Your task to perform on an android device: Clear the cart on ebay.com. Add jbl charge 4 to the cart on ebay.com Image 0: 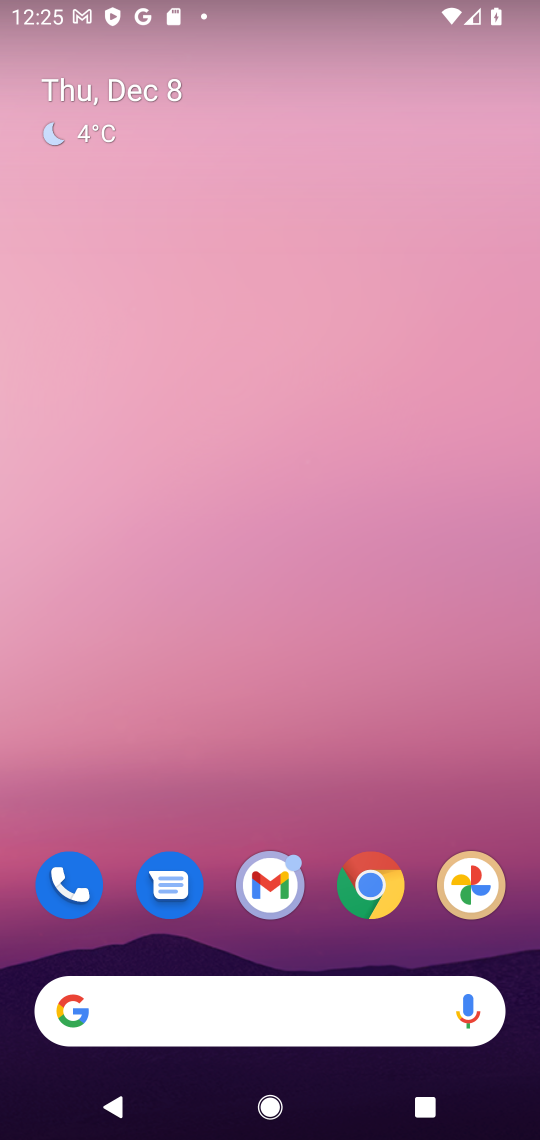
Step 0: click (370, 903)
Your task to perform on an android device: Clear the cart on ebay.com. Add jbl charge 4 to the cart on ebay.com Image 1: 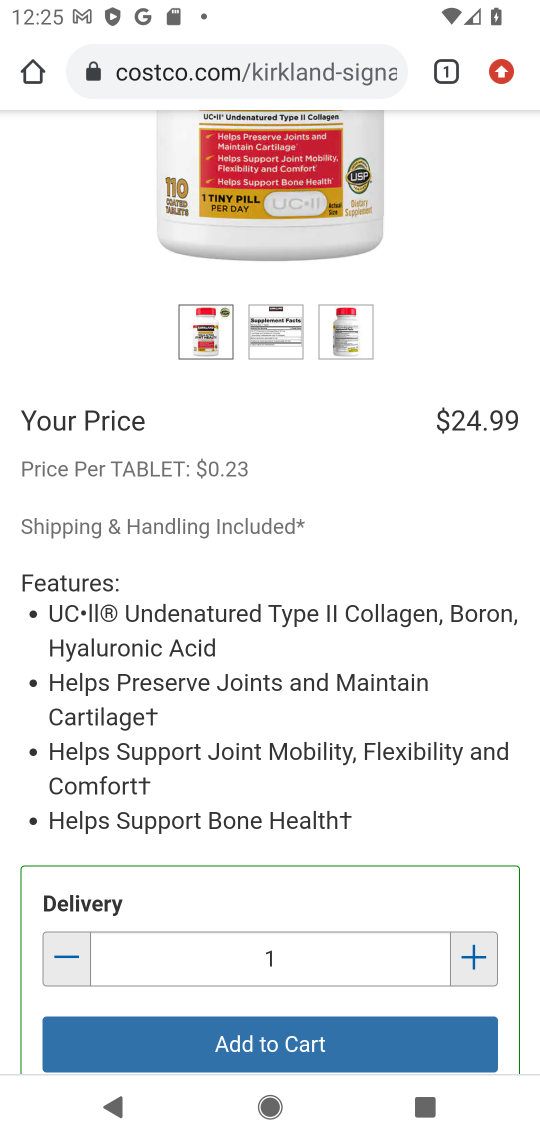
Step 1: click (324, 74)
Your task to perform on an android device: Clear the cart on ebay.com. Add jbl charge 4 to the cart on ebay.com Image 2: 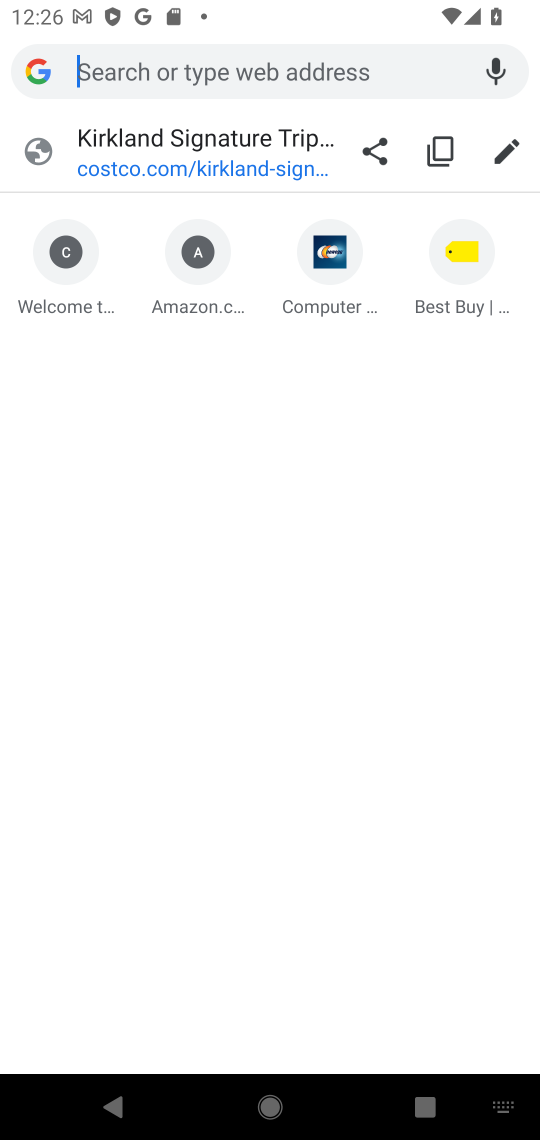
Step 2: type "EBAY"
Your task to perform on an android device: Clear the cart on ebay.com. Add jbl charge 4 to the cart on ebay.com Image 3: 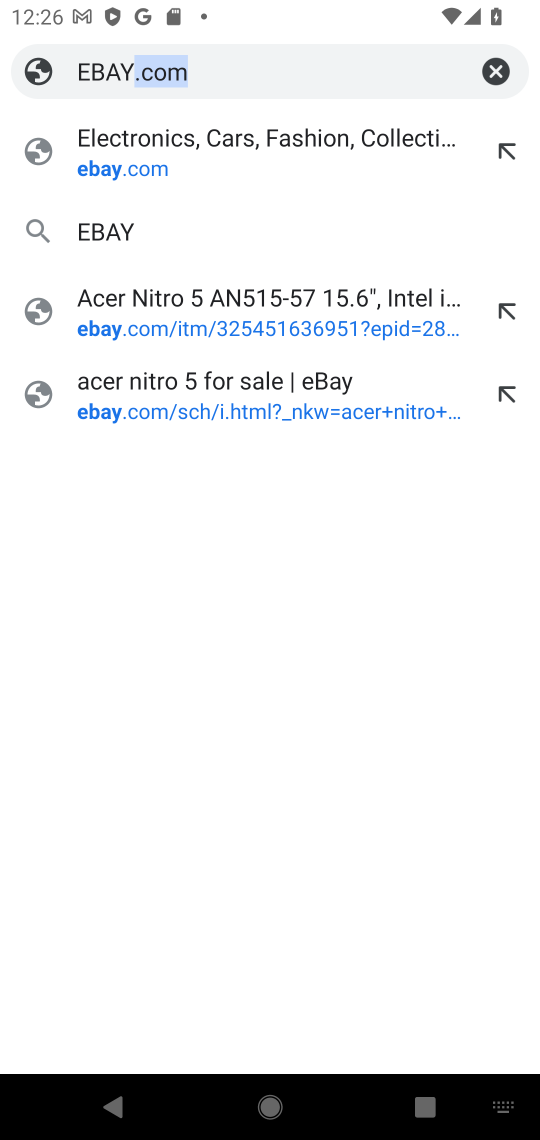
Step 3: click (149, 166)
Your task to perform on an android device: Clear the cart on ebay.com. Add jbl charge 4 to the cart on ebay.com Image 4: 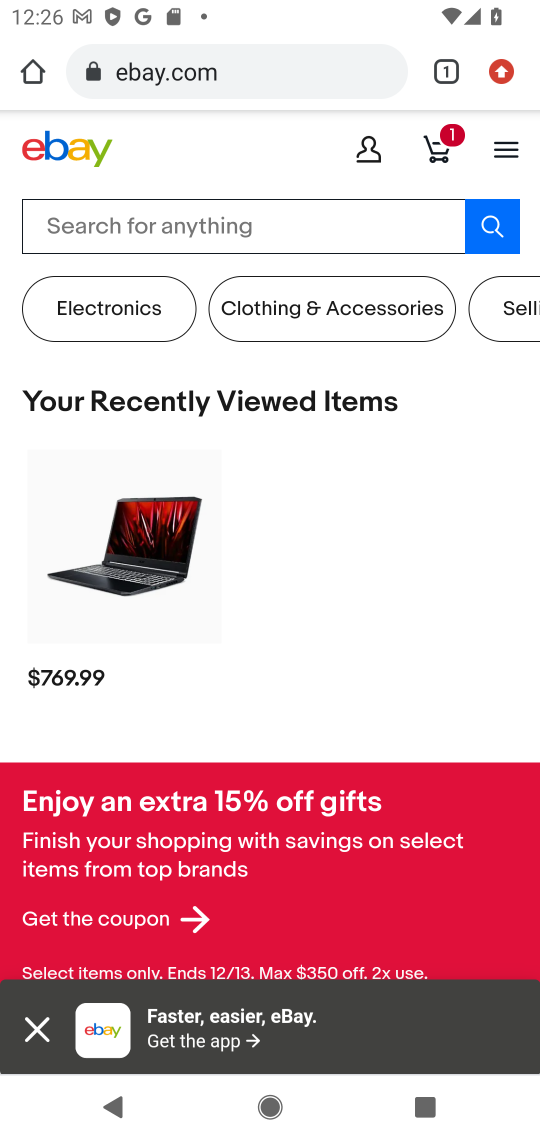
Step 4: drag from (336, 755) to (310, 124)
Your task to perform on an android device: Clear the cart on ebay.com. Add jbl charge 4 to the cart on ebay.com Image 5: 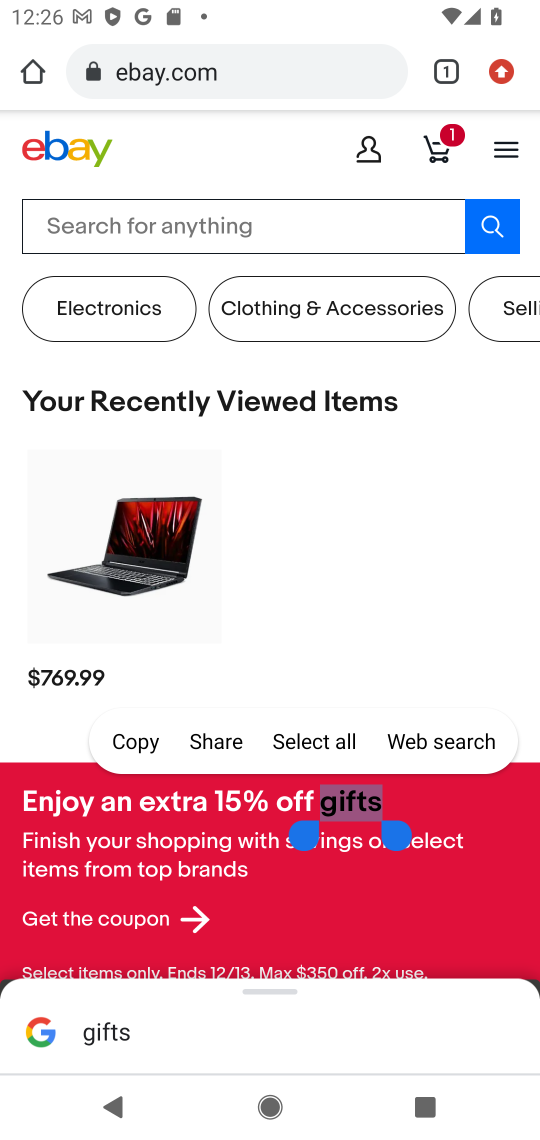
Step 5: drag from (430, 587) to (437, 84)
Your task to perform on an android device: Clear the cart on ebay.com. Add jbl charge 4 to the cart on ebay.com Image 6: 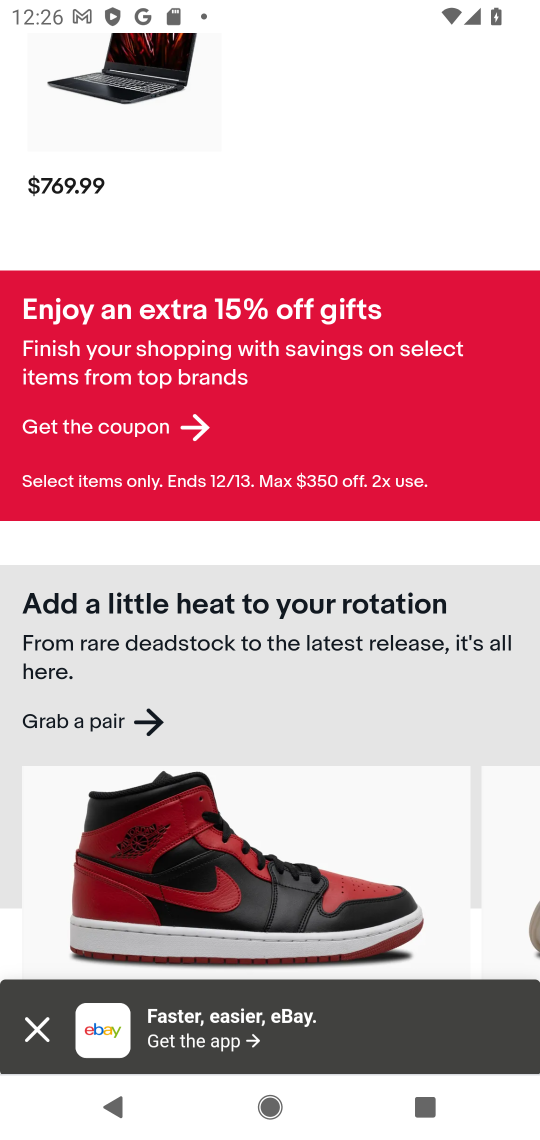
Step 6: drag from (349, 769) to (362, 130)
Your task to perform on an android device: Clear the cart on ebay.com. Add jbl charge 4 to the cart on ebay.com Image 7: 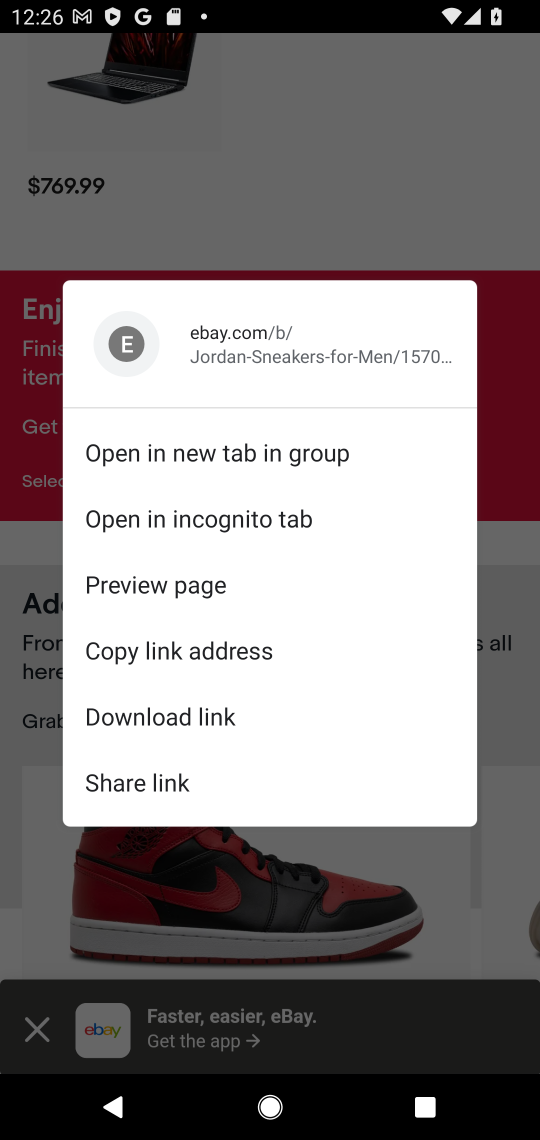
Step 7: click (401, 170)
Your task to perform on an android device: Clear the cart on ebay.com. Add jbl charge 4 to the cart on ebay.com Image 8: 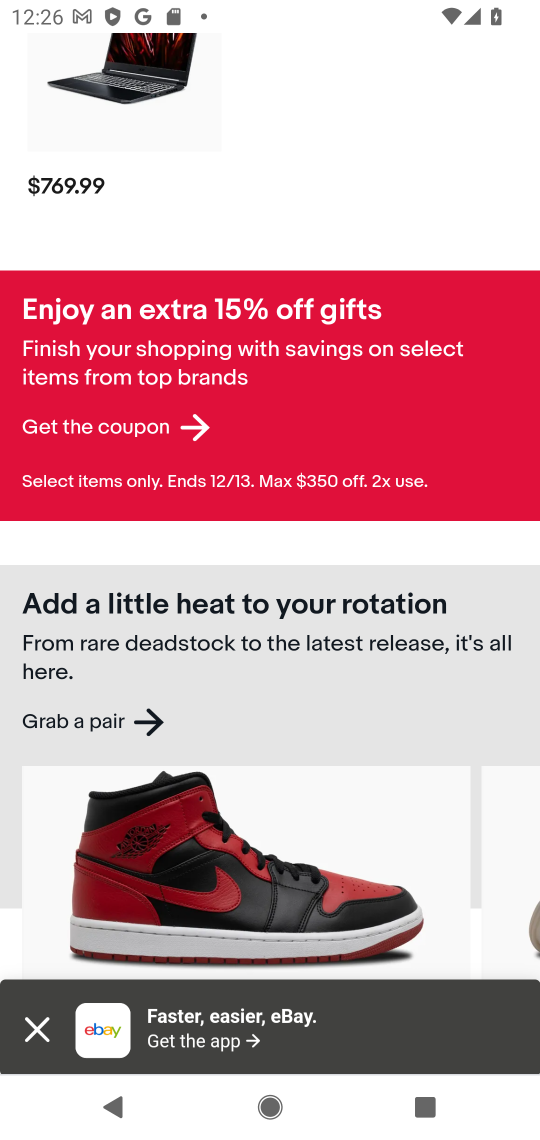
Step 8: drag from (458, 235) to (409, 740)
Your task to perform on an android device: Clear the cart on ebay.com. Add jbl charge 4 to the cart on ebay.com Image 9: 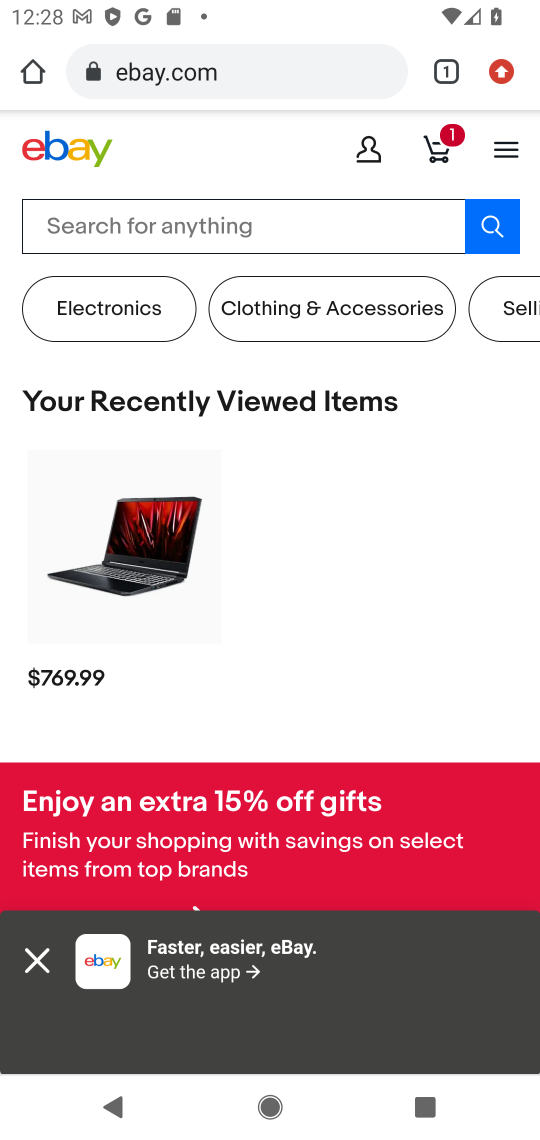
Step 9: click (429, 144)
Your task to perform on an android device: Clear the cart on ebay.com. Add jbl charge 4 to the cart on ebay.com Image 10: 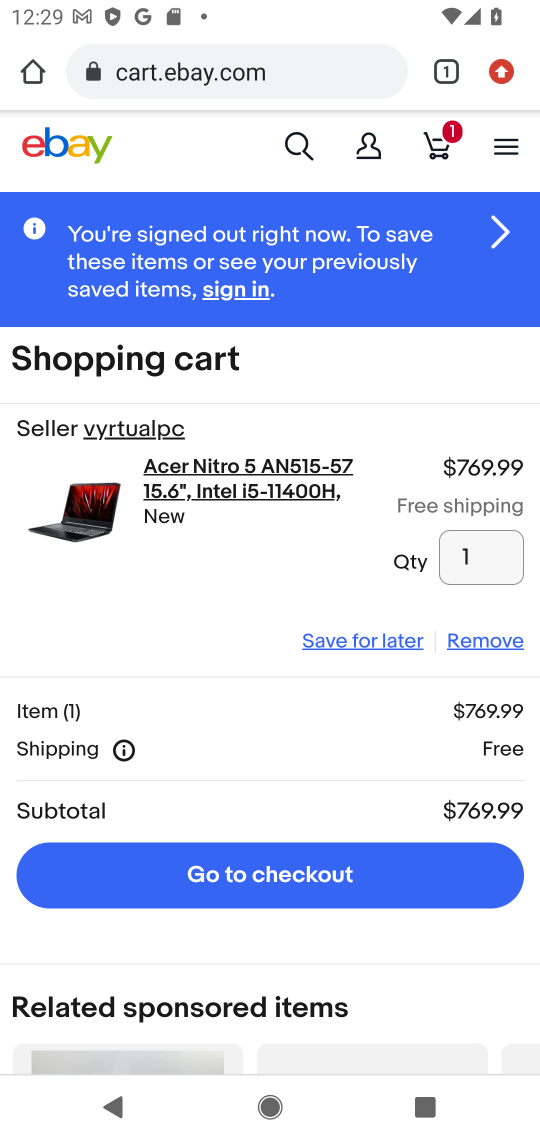
Step 10: click (471, 641)
Your task to perform on an android device: Clear the cart on ebay.com. Add jbl charge 4 to the cart on ebay.com Image 11: 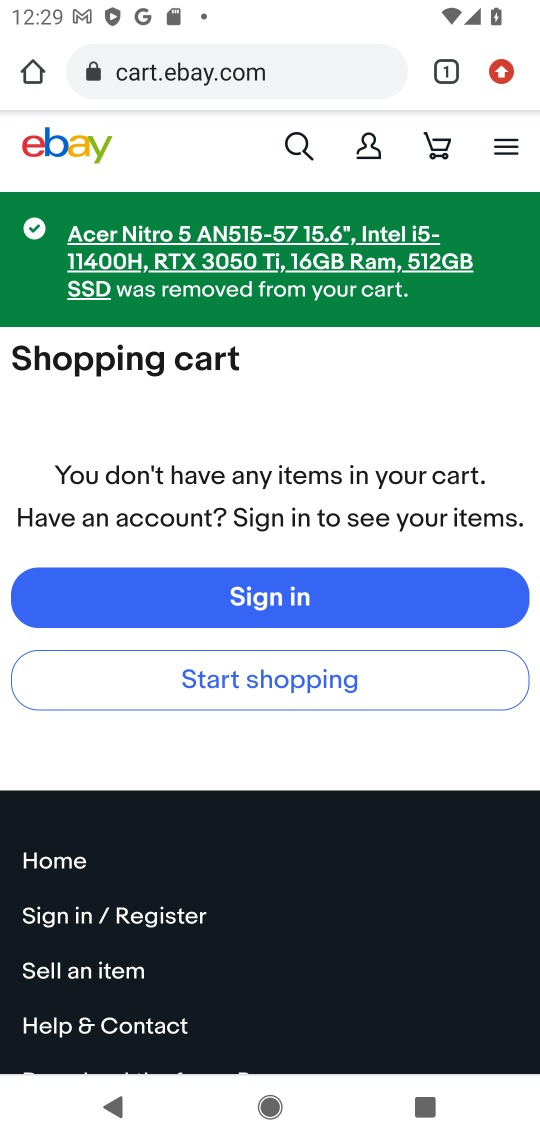
Step 11: click (297, 149)
Your task to perform on an android device: Clear the cart on ebay.com. Add jbl charge 4 to the cart on ebay.com Image 12: 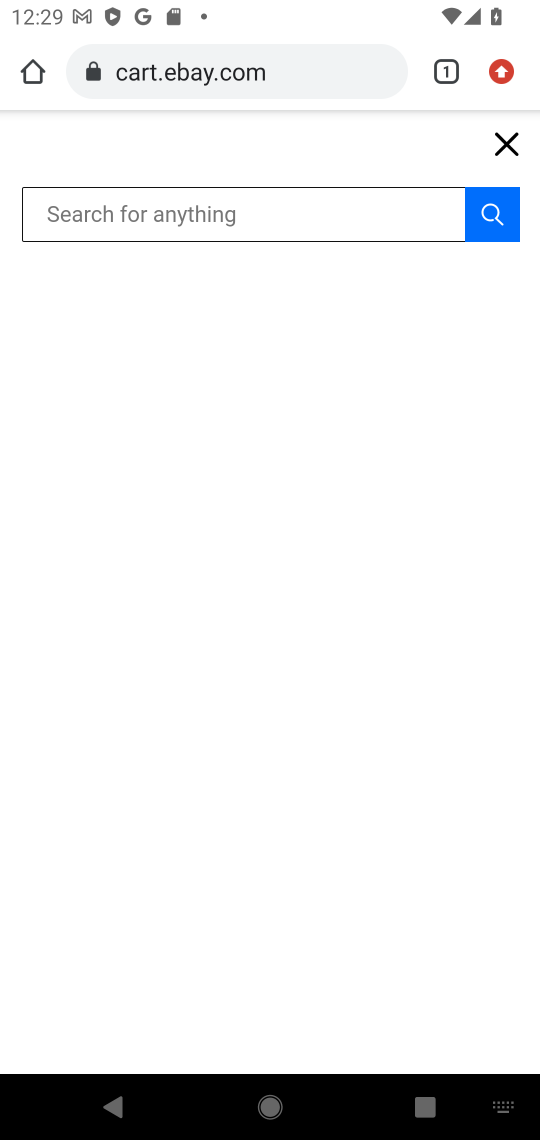
Step 12: type "jbl charge 4"
Your task to perform on an android device: Clear the cart on ebay.com. Add jbl charge 4 to the cart on ebay.com Image 13: 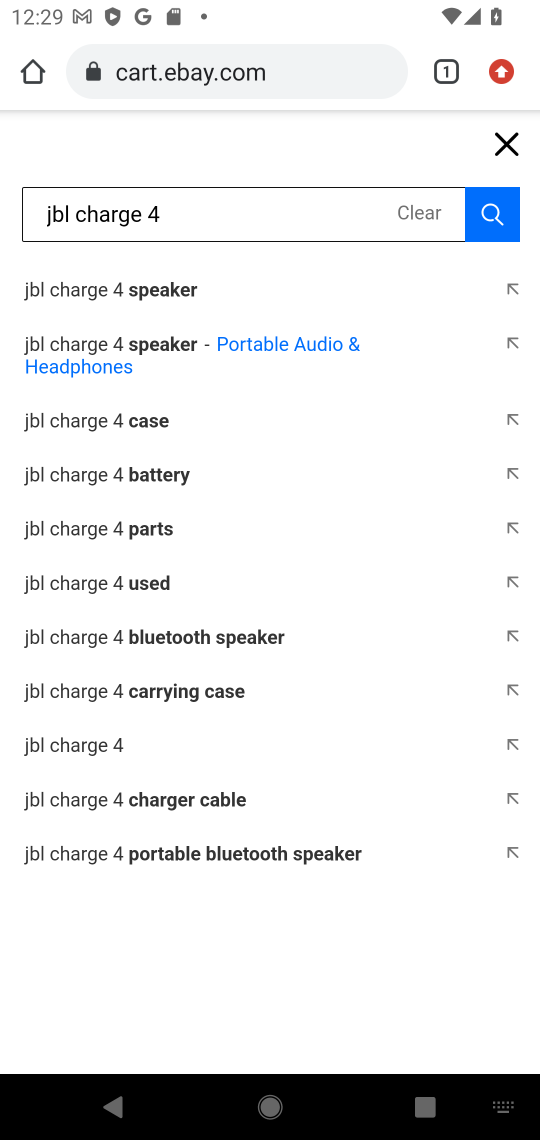
Step 13: click (153, 296)
Your task to perform on an android device: Clear the cart on ebay.com. Add jbl charge 4 to the cart on ebay.com Image 14: 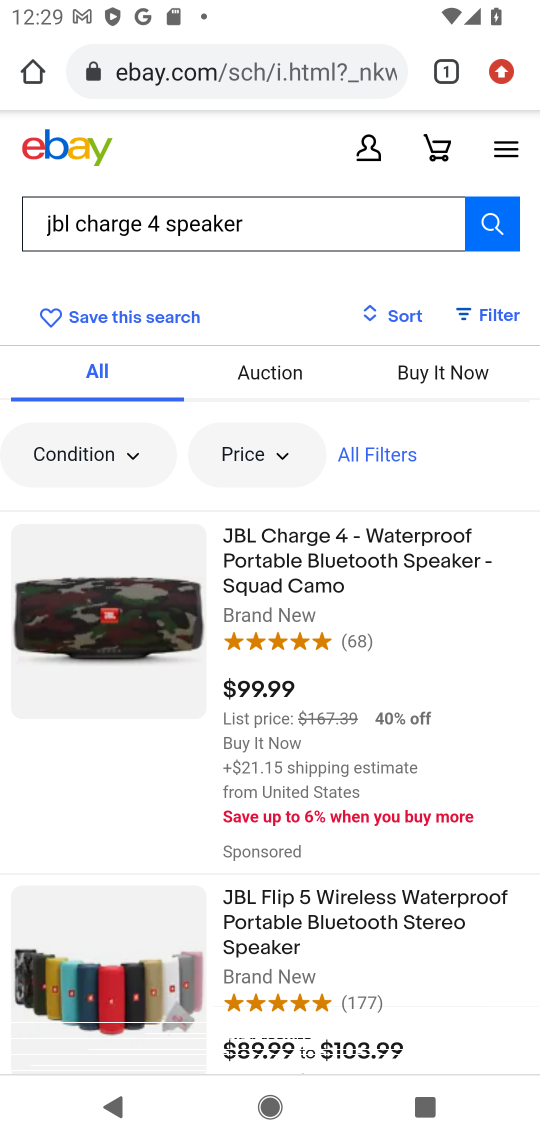
Step 14: click (169, 626)
Your task to perform on an android device: Clear the cart on ebay.com. Add jbl charge 4 to the cart on ebay.com Image 15: 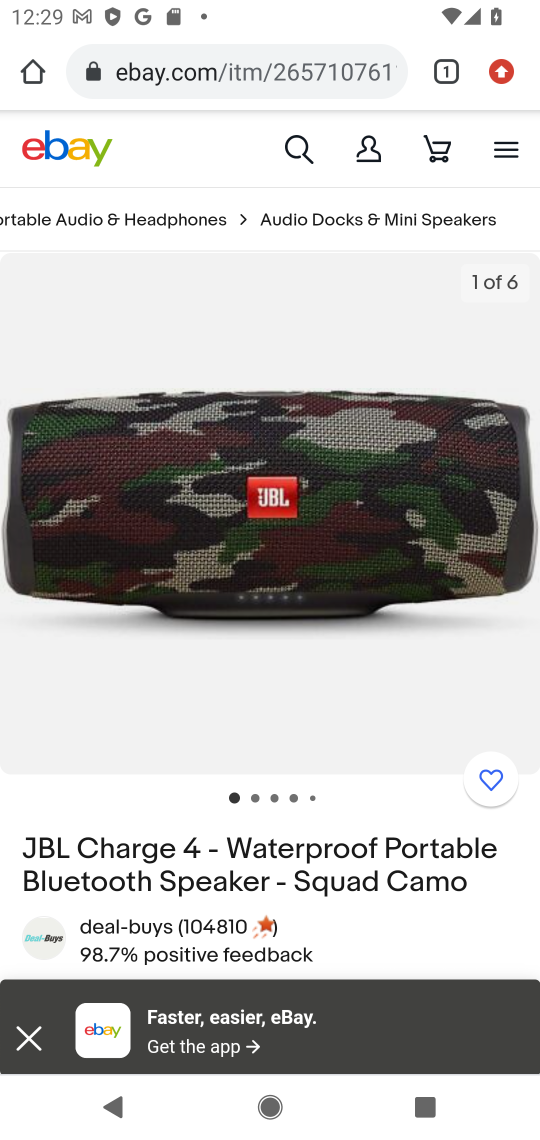
Step 15: drag from (422, 974) to (411, 335)
Your task to perform on an android device: Clear the cart on ebay.com. Add jbl charge 4 to the cart on ebay.com Image 16: 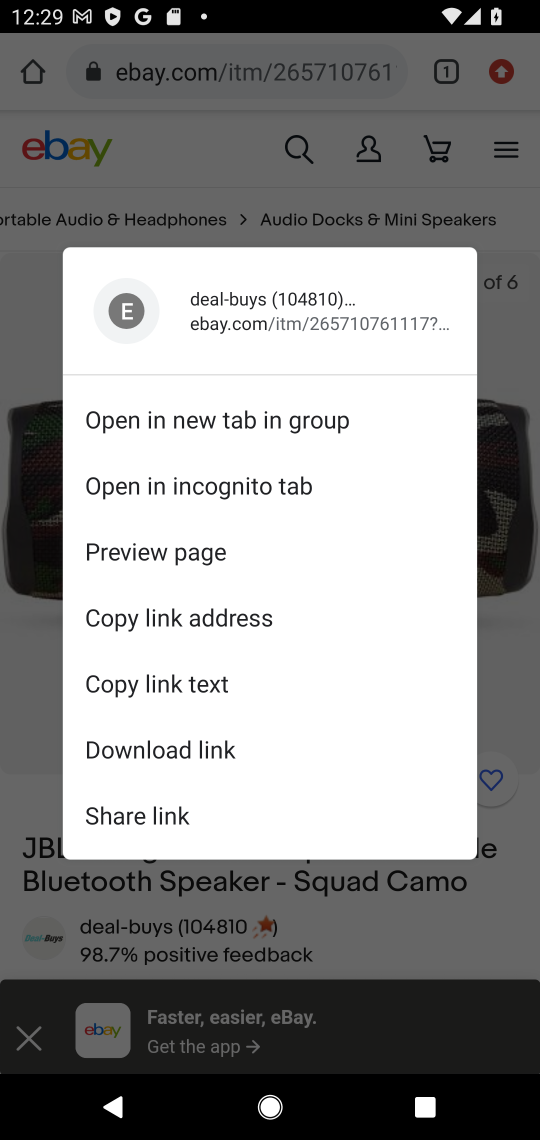
Step 16: click (517, 879)
Your task to perform on an android device: Clear the cart on ebay.com. Add jbl charge 4 to the cart on ebay.com Image 17: 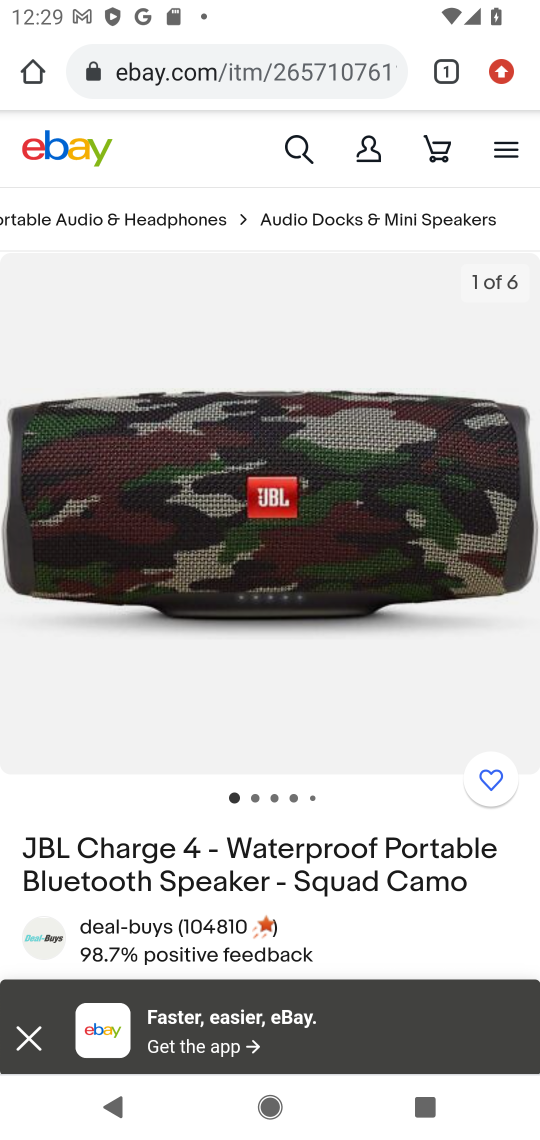
Step 17: drag from (432, 920) to (379, 286)
Your task to perform on an android device: Clear the cart on ebay.com. Add jbl charge 4 to the cart on ebay.com Image 18: 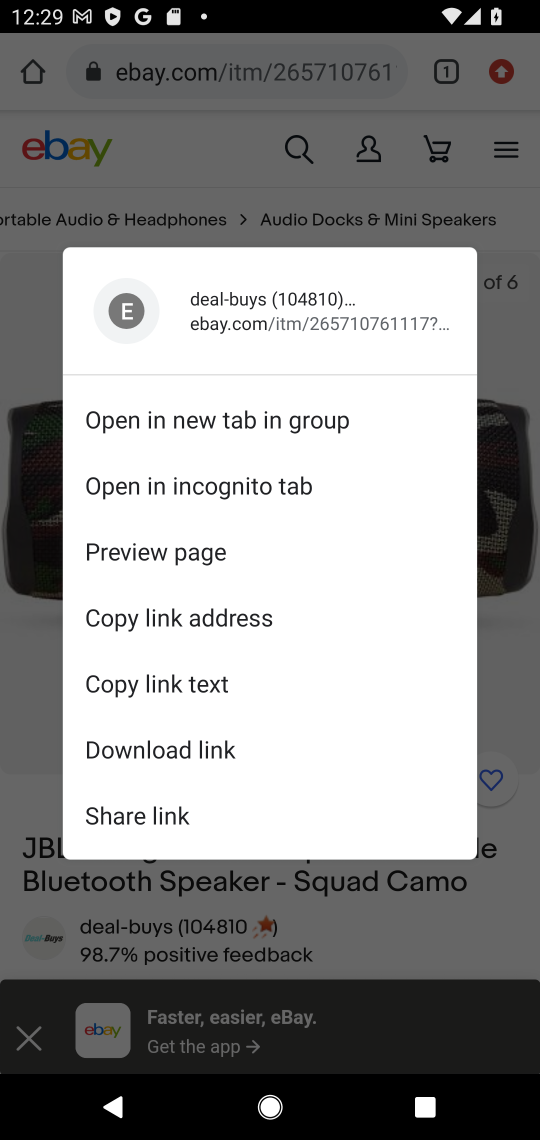
Step 18: click (466, 935)
Your task to perform on an android device: Clear the cart on ebay.com. Add jbl charge 4 to the cart on ebay.com Image 19: 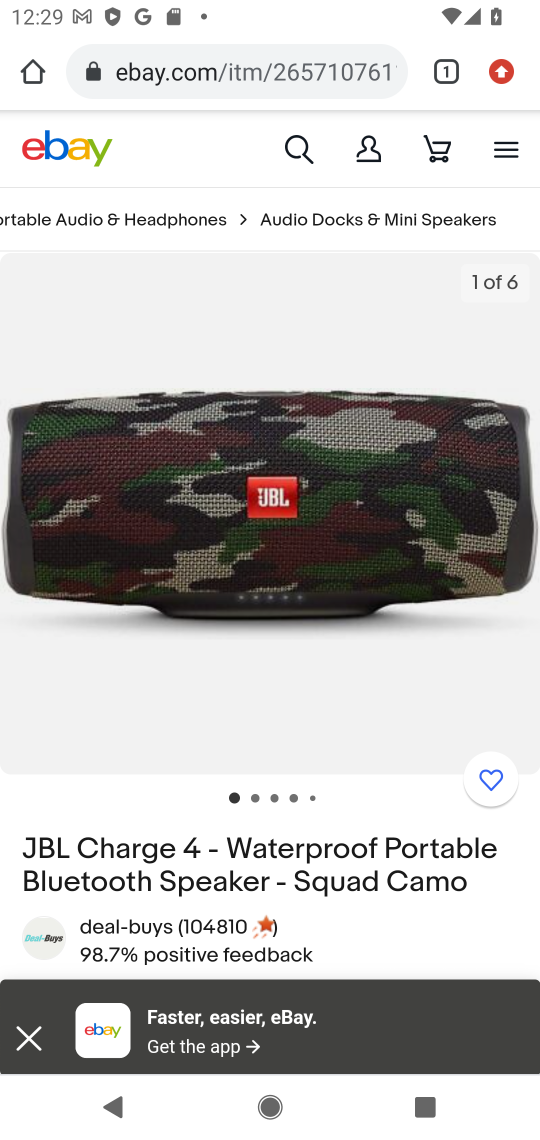
Step 19: drag from (385, 917) to (334, 370)
Your task to perform on an android device: Clear the cart on ebay.com. Add jbl charge 4 to the cart on ebay.com Image 20: 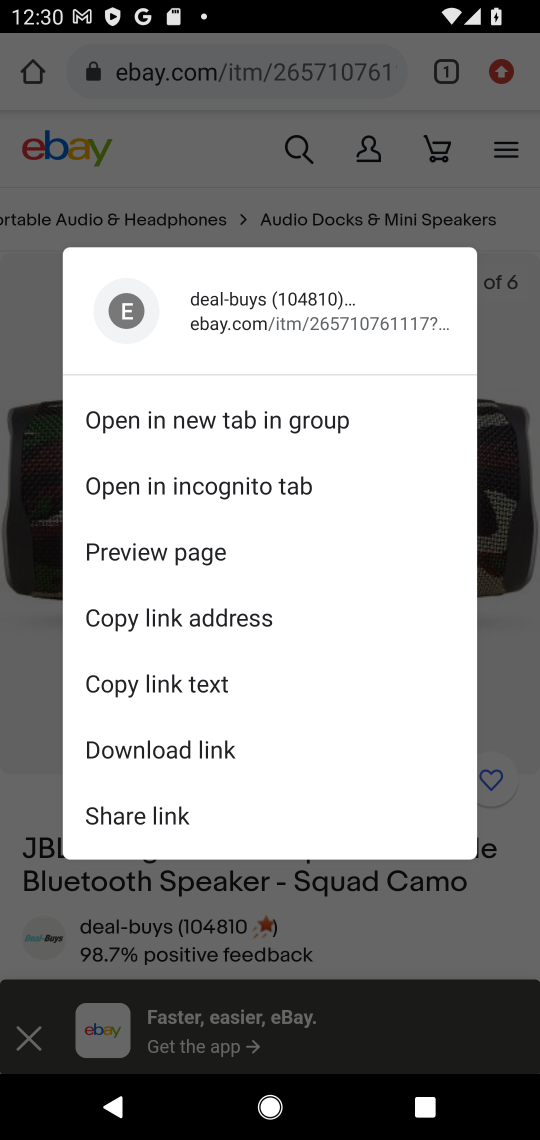
Step 20: click (505, 595)
Your task to perform on an android device: Clear the cart on ebay.com. Add jbl charge 4 to the cart on ebay.com Image 21: 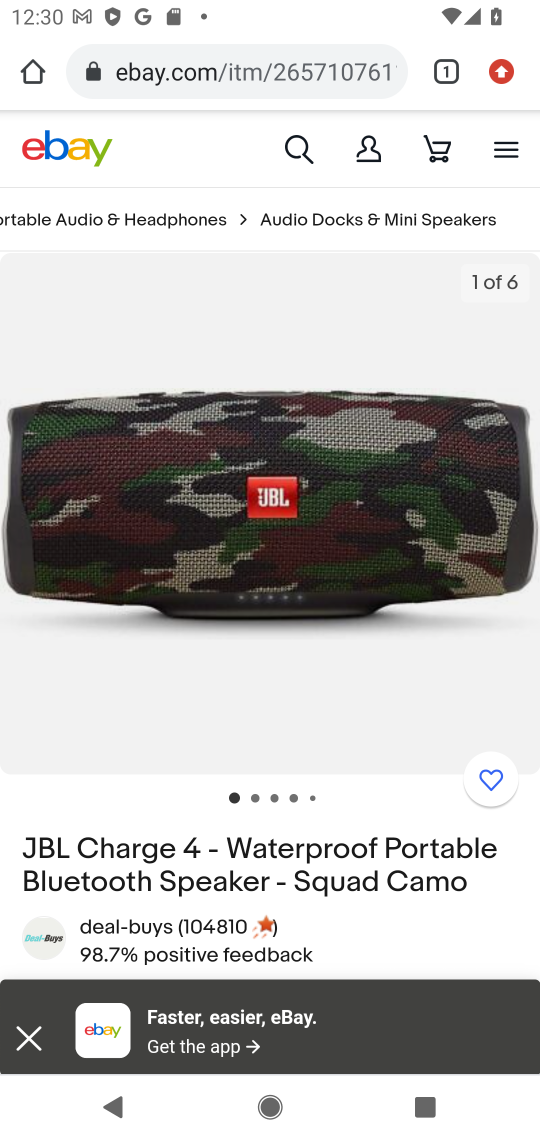
Step 21: drag from (349, 939) to (355, 195)
Your task to perform on an android device: Clear the cart on ebay.com. Add jbl charge 4 to the cart on ebay.com Image 22: 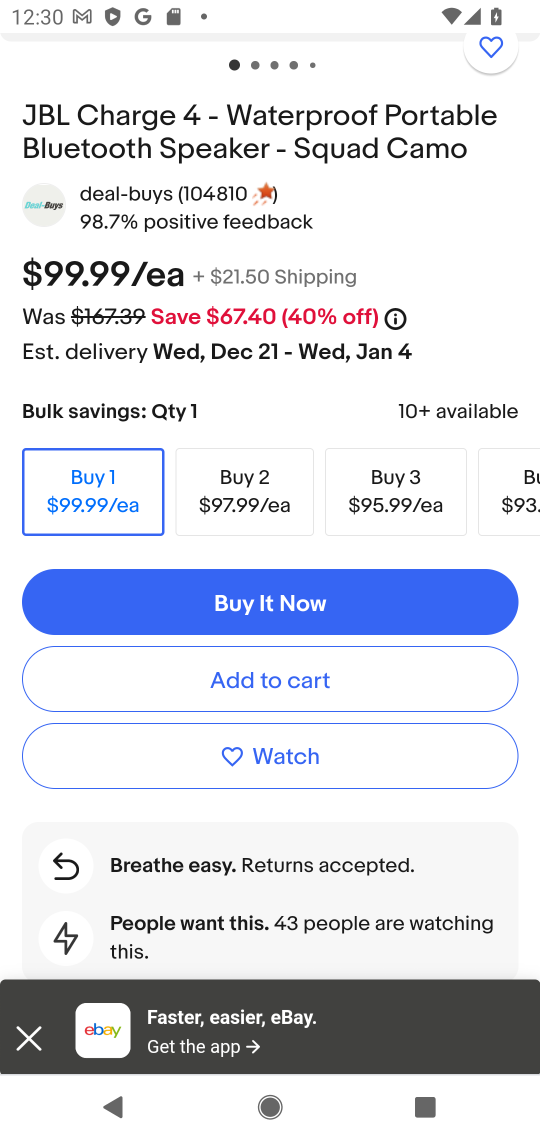
Step 22: click (316, 676)
Your task to perform on an android device: Clear the cart on ebay.com. Add jbl charge 4 to the cart on ebay.com Image 23: 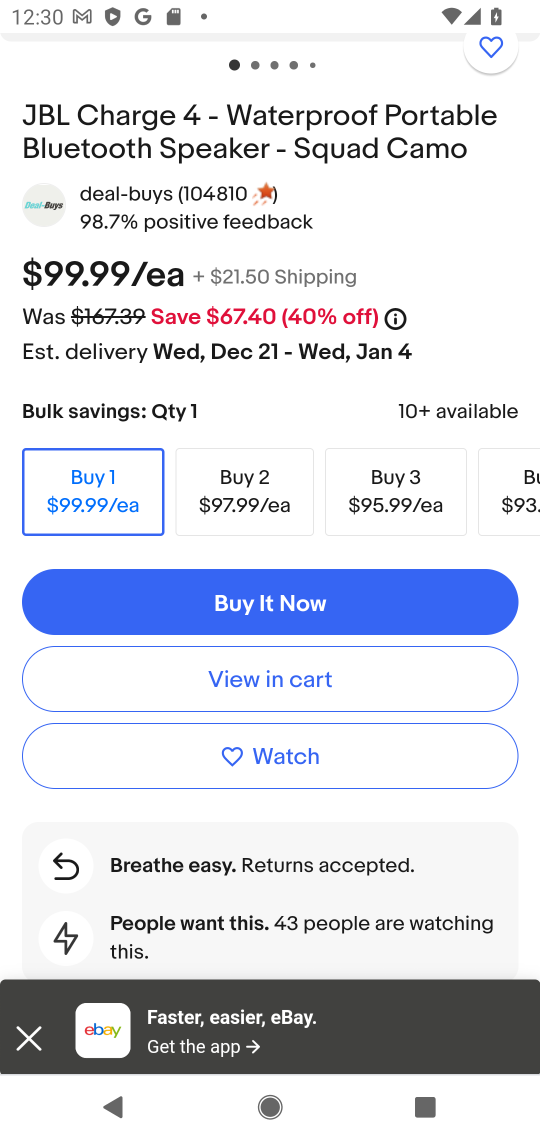
Step 23: click (316, 676)
Your task to perform on an android device: Clear the cart on ebay.com. Add jbl charge 4 to the cart on ebay.com Image 24: 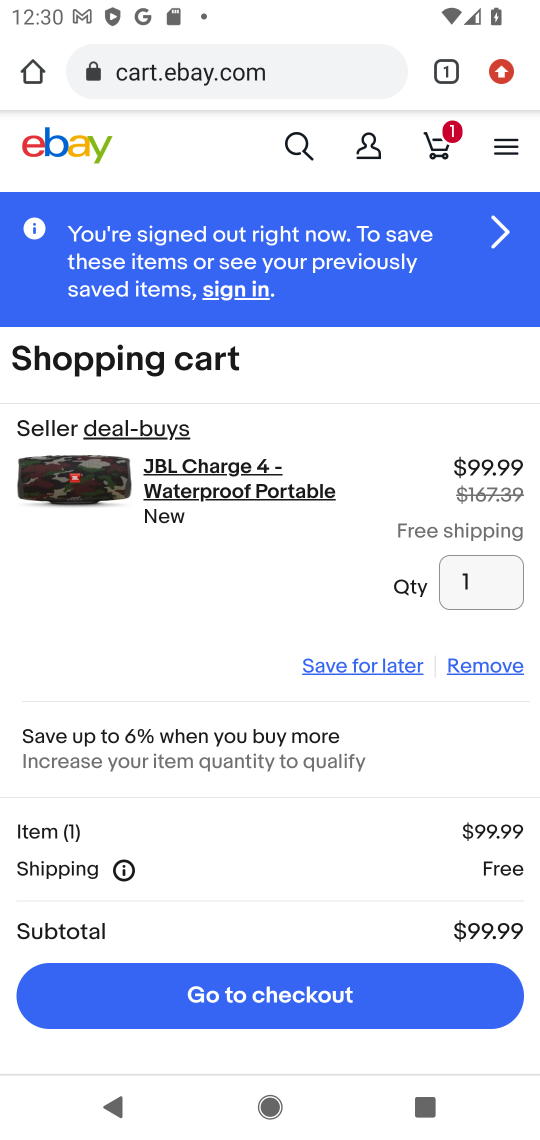
Step 24: task complete